Your task to perform on an android device: turn off airplane mode Image 0: 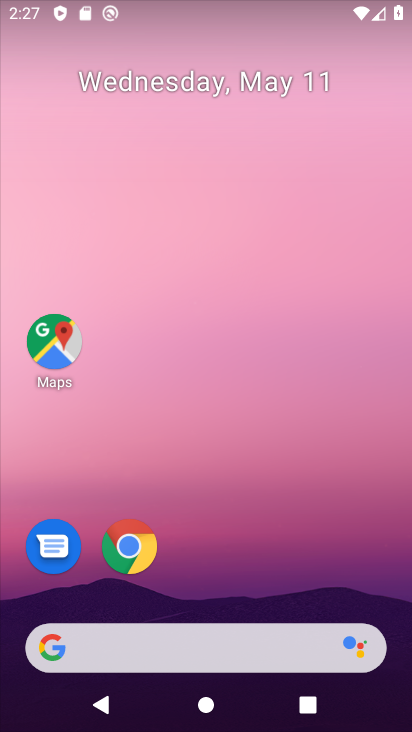
Step 0: drag from (256, 237) to (255, 87)
Your task to perform on an android device: turn off airplane mode Image 1: 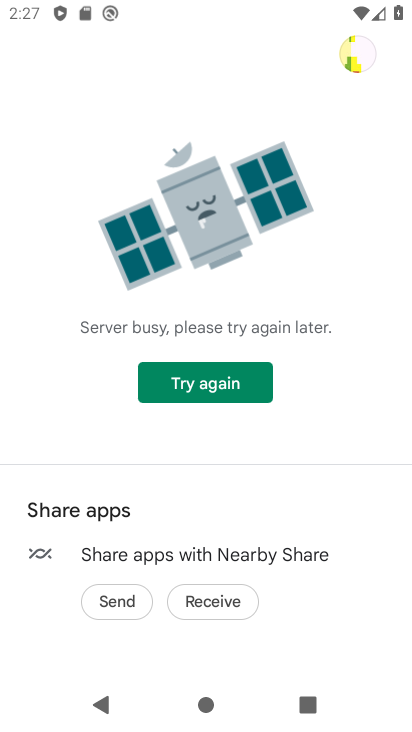
Step 1: press home button
Your task to perform on an android device: turn off airplane mode Image 2: 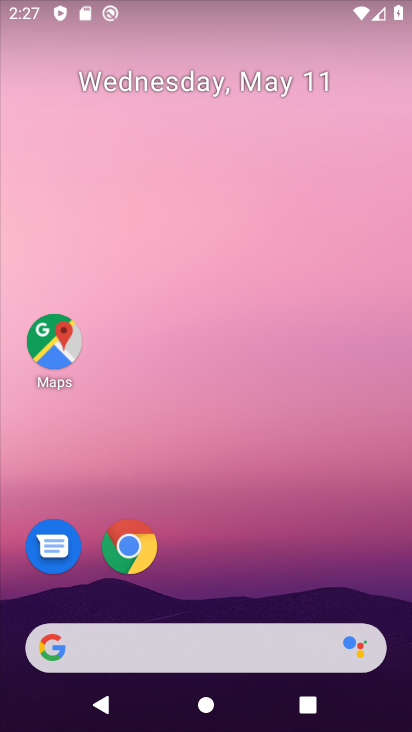
Step 2: drag from (219, 587) to (201, 163)
Your task to perform on an android device: turn off airplane mode Image 3: 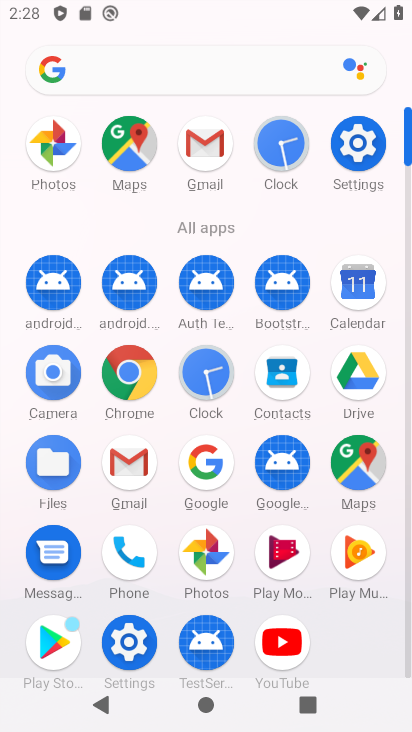
Step 3: click (124, 648)
Your task to perform on an android device: turn off airplane mode Image 4: 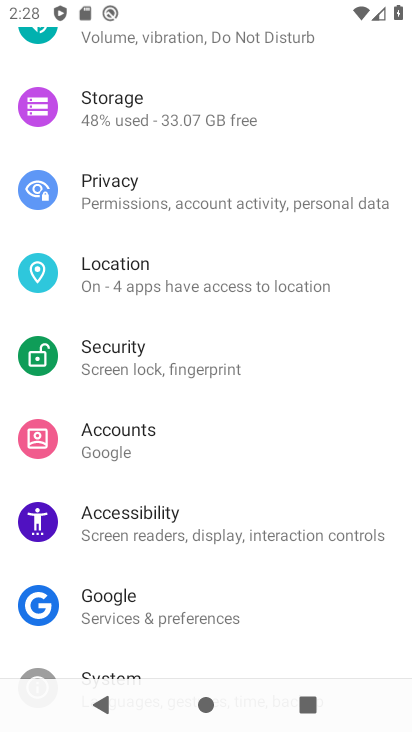
Step 4: drag from (169, 219) to (131, 661)
Your task to perform on an android device: turn off airplane mode Image 5: 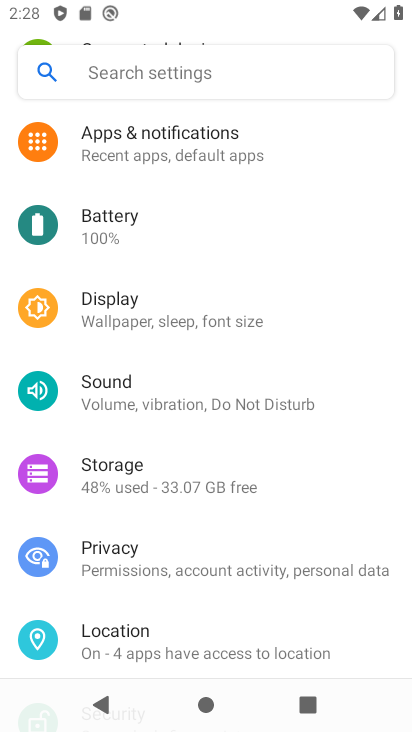
Step 5: drag from (173, 173) to (173, 535)
Your task to perform on an android device: turn off airplane mode Image 6: 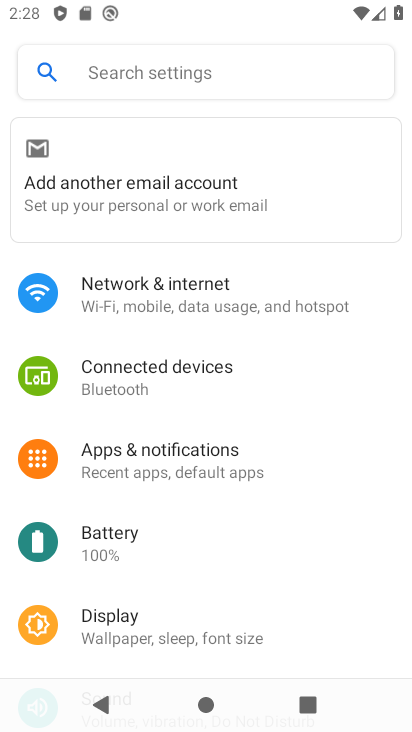
Step 6: click (144, 292)
Your task to perform on an android device: turn off airplane mode Image 7: 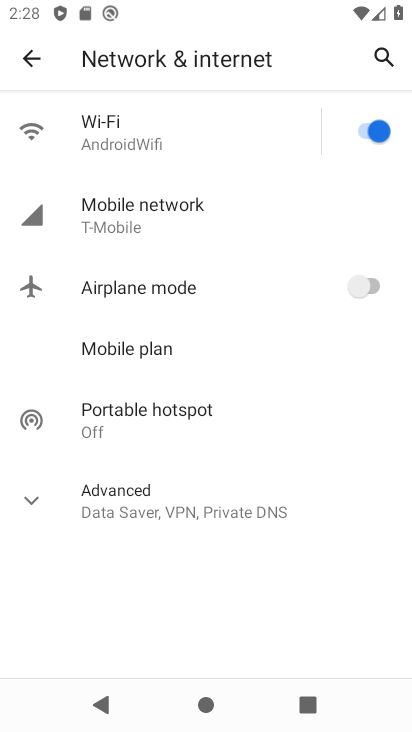
Step 7: task complete